Your task to perform on an android device: open app "Google Chrome" Image 0: 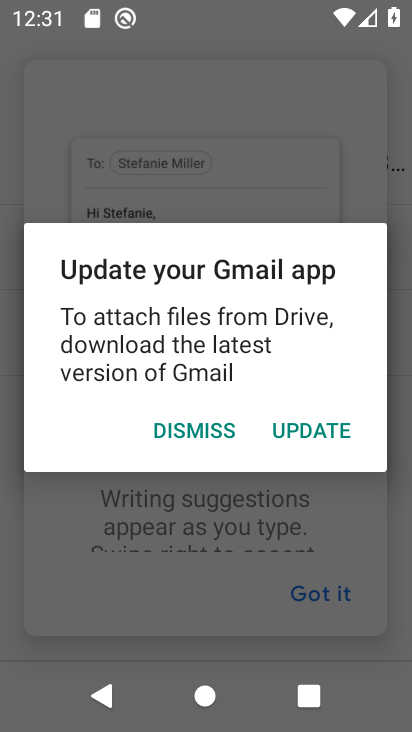
Step 0: press home button
Your task to perform on an android device: open app "Google Chrome" Image 1: 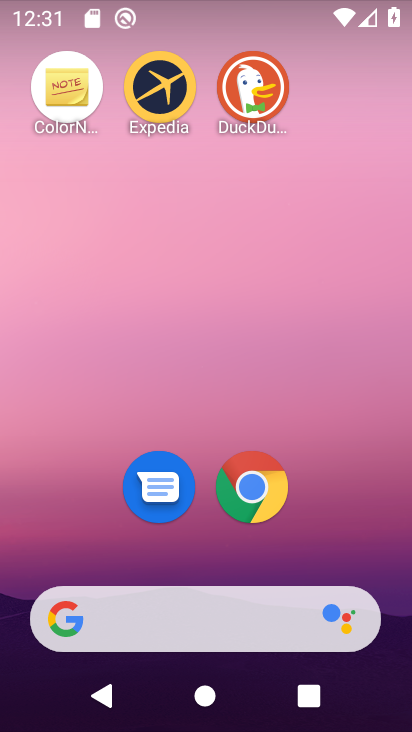
Step 1: drag from (218, 551) to (264, 0)
Your task to perform on an android device: open app "Google Chrome" Image 2: 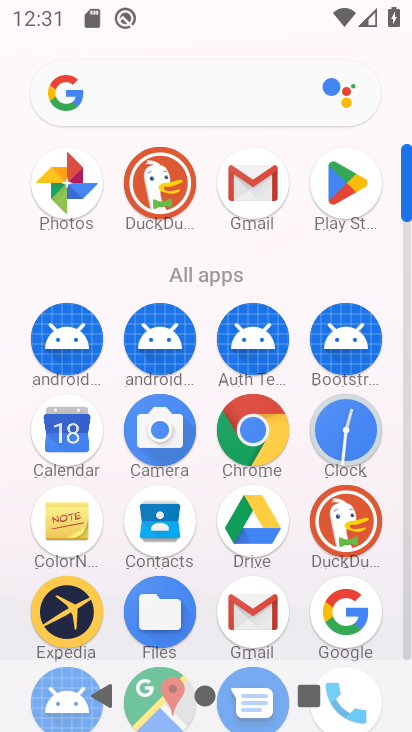
Step 2: click (343, 185)
Your task to perform on an android device: open app "Google Chrome" Image 3: 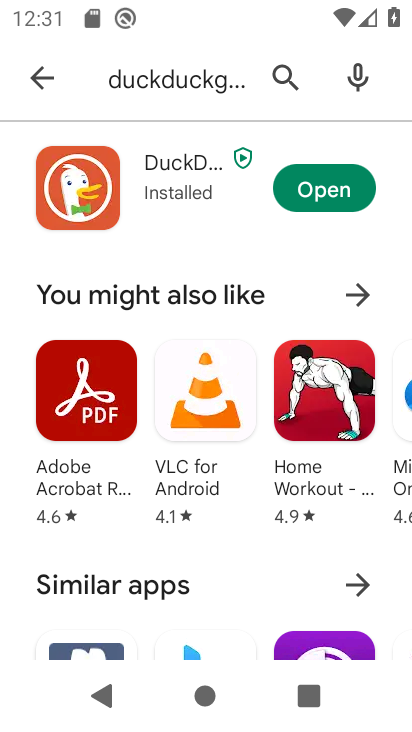
Step 3: click (281, 74)
Your task to perform on an android device: open app "Google Chrome" Image 4: 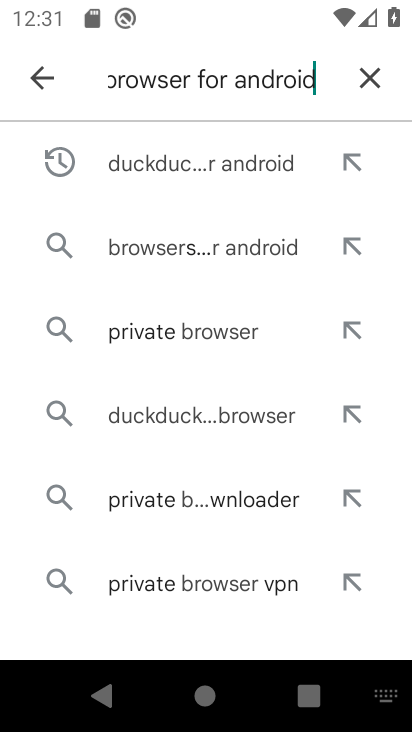
Step 4: click (362, 79)
Your task to perform on an android device: open app "Google Chrome" Image 5: 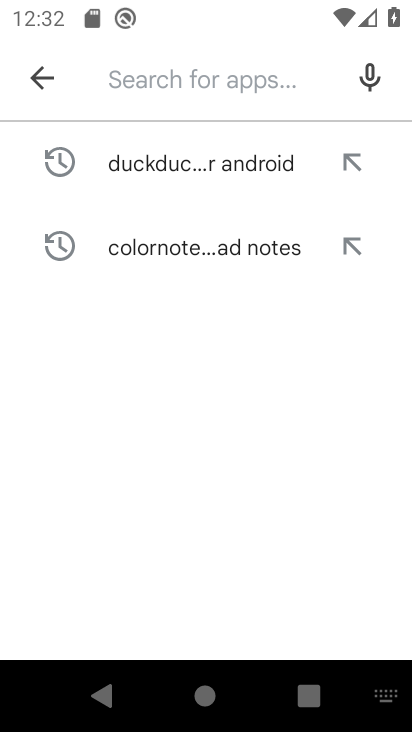
Step 5: type "Google Chrome"
Your task to perform on an android device: open app "Google Chrome" Image 6: 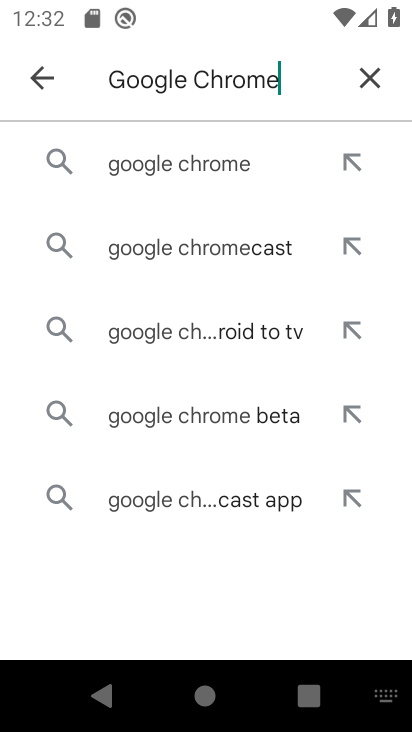
Step 6: click (179, 151)
Your task to perform on an android device: open app "Google Chrome" Image 7: 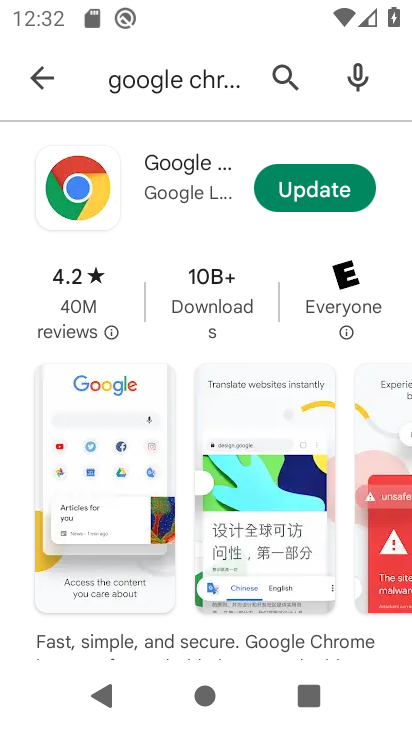
Step 7: click (322, 186)
Your task to perform on an android device: open app "Google Chrome" Image 8: 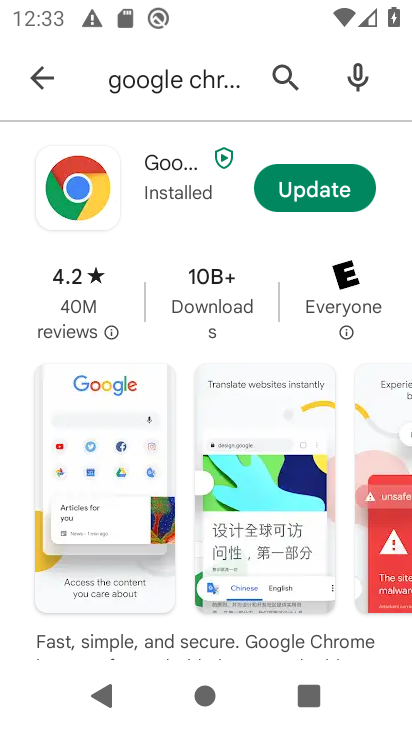
Step 8: task complete